Your task to perform on an android device: Open the stopwatch Image 0: 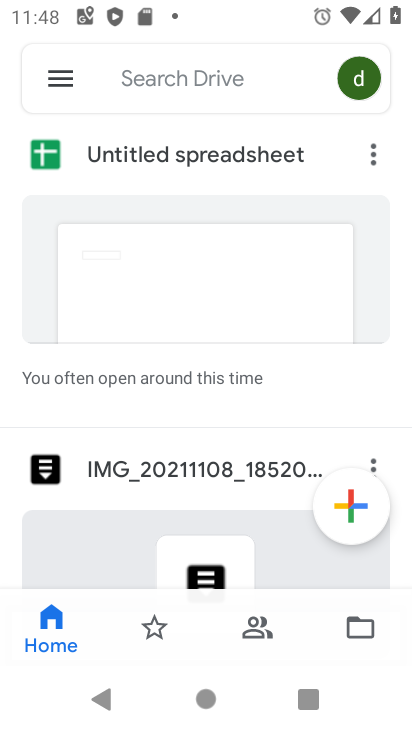
Step 0: press home button
Your task to perform on an android device: Open the stopwatch Image 1: 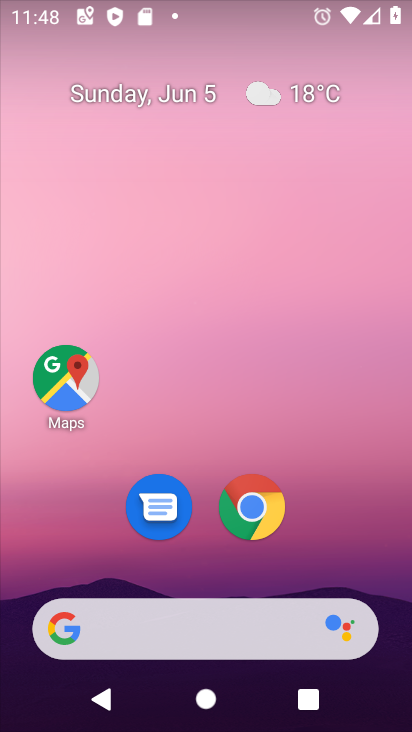
Step 1: drag from (244, 725) to (211, 103)
Your task to perform on an android device: Open the stopwatch Image 2: 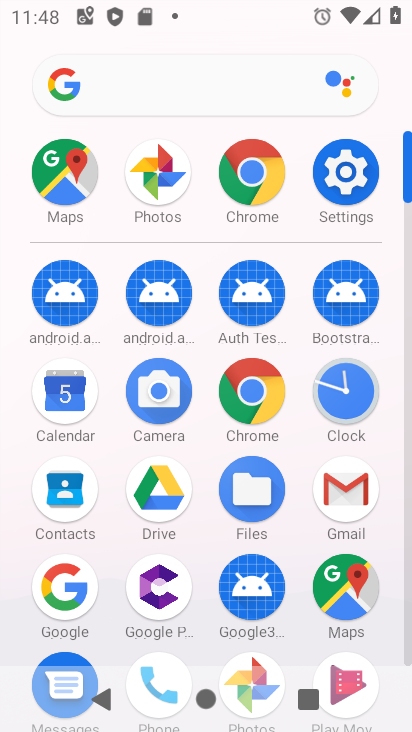
Step 2: click (341, 392)
Your task to perform on an android device: Open the stopwatch Image 3: 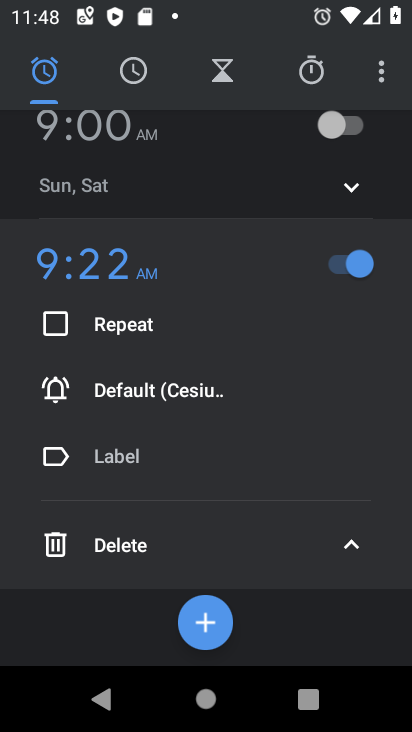
Step 3: click (322, 68)
Your task to perform on an android device: Open the stopwatch Image 4: 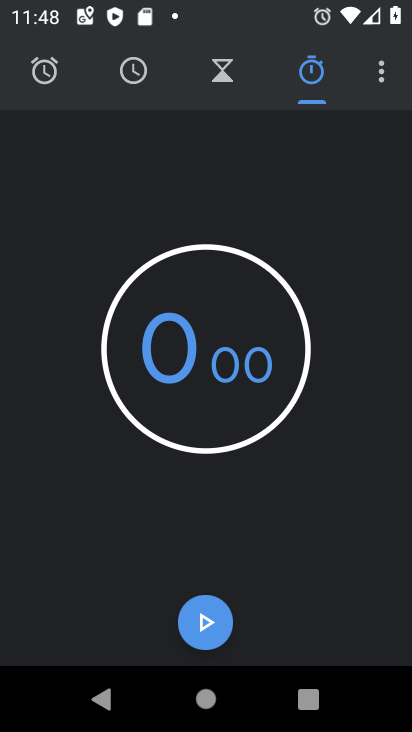
Step 4: click (185, 320)
Your task to perform on an android device: Open the stopwatch Image 5: 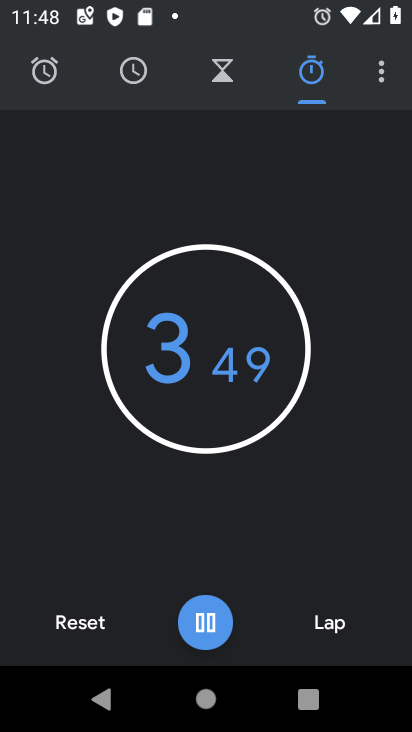
Step 5: type "8888"
Your task to perform on an android device: Open the stopwatch Image 6: 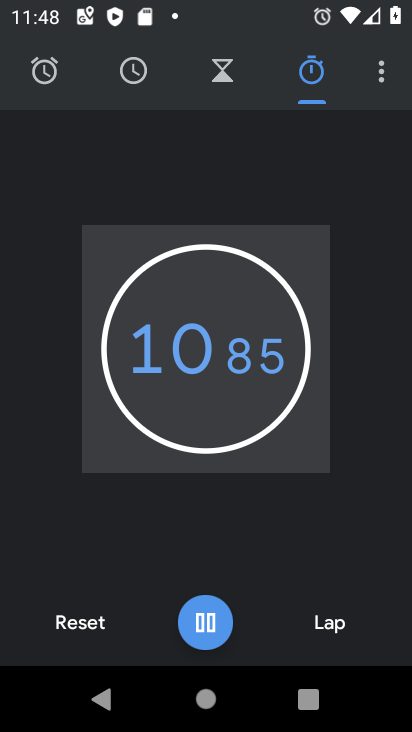
Step 6: task complete